Your task to perform on an android device: Open ESPN.com Image 0: 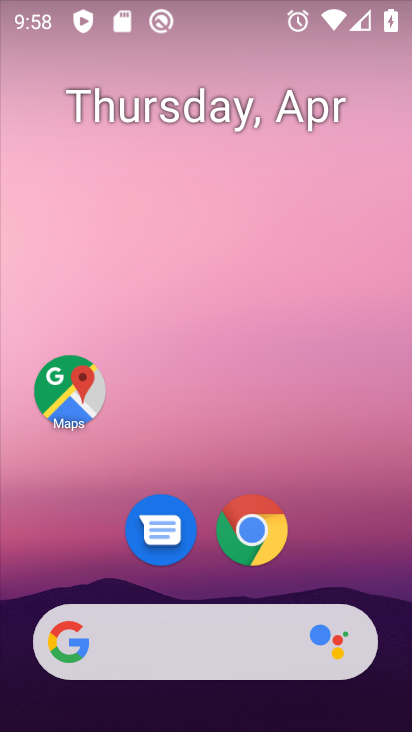
Step 0: click (258, 539)
Your task to perform on an android device: Open ESPN.com Image 1: 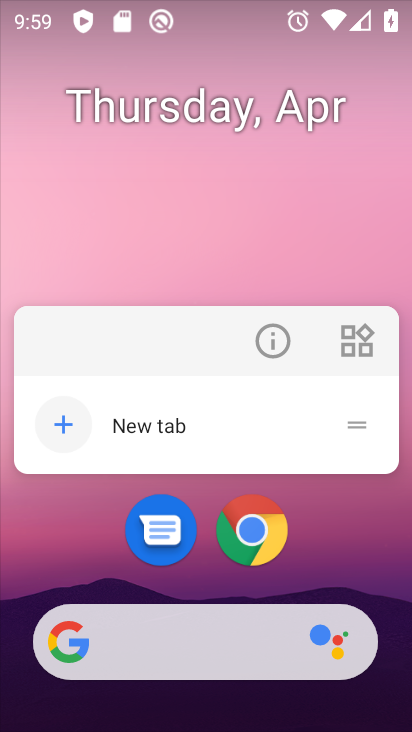
Step 1: click (255, 526)
Your task to perform on an android device: Open ESPN.com Image 2: 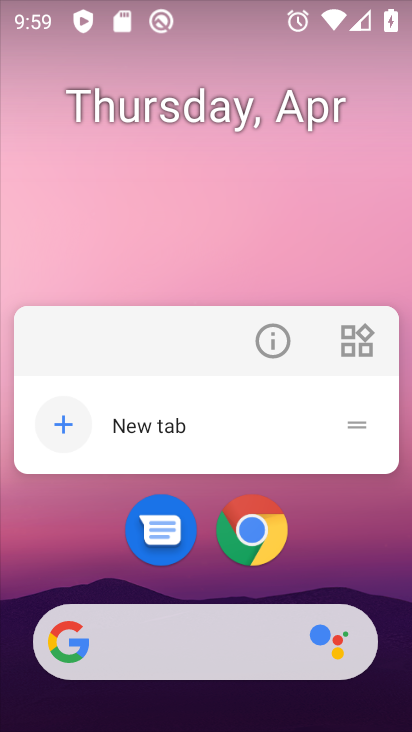
Step 2: click (250, 534)
Your task to perform on an android device: Open ESPN.com Image 3: 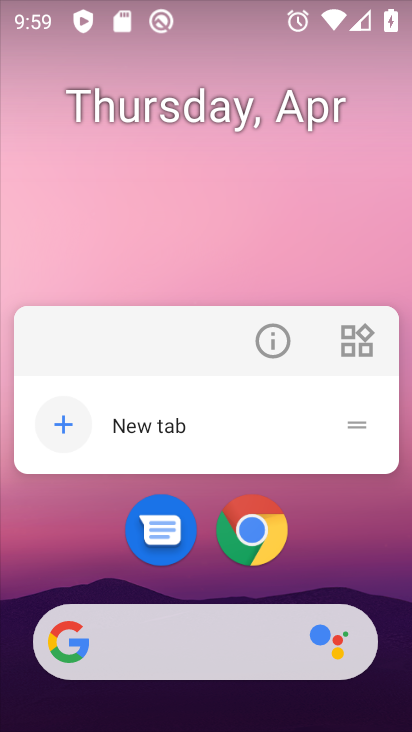
Step 3: click (275, 532)
Your task to perform on an android device: Open ESPN.com Image 4: 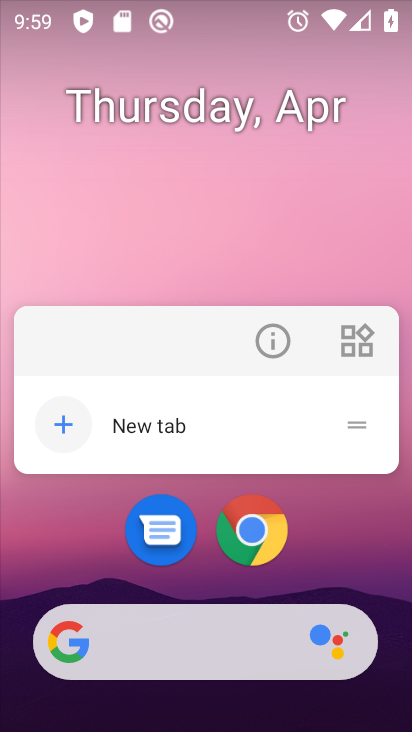
Step 4: click (275, 532)
Your task to perform on an android device: Open ESPN.com Image 5: 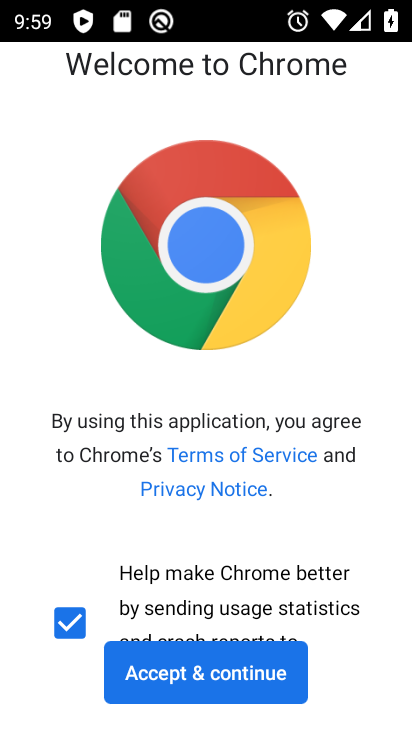
Step 5: click (226, 671)
Your task to perform on an android device: Open ESPN.com Image 6: 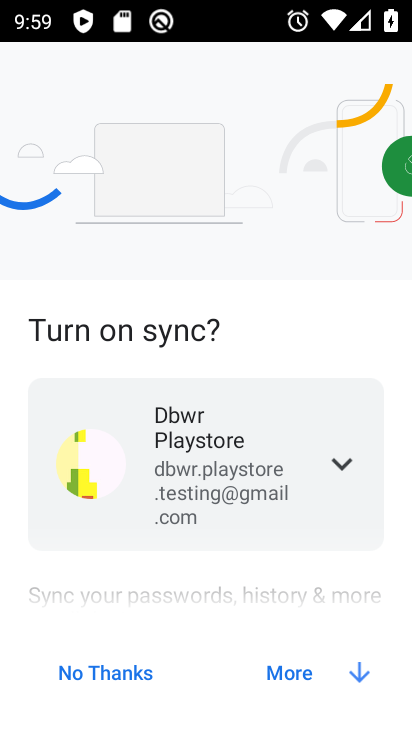
Step 6: click (301, 687)
Your task to perform on an android device: Open ESPN.com Image 7: 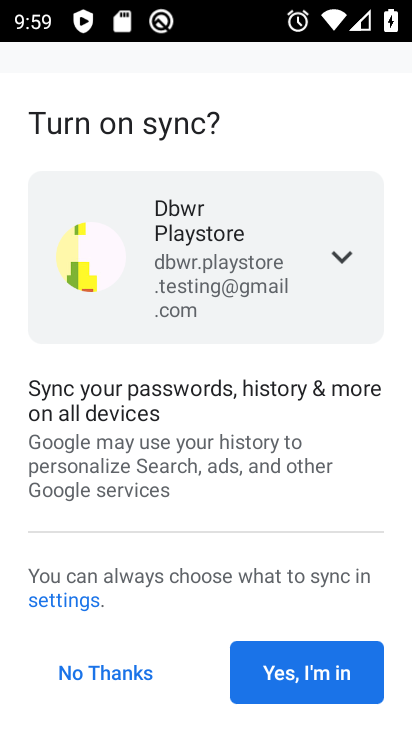
Step 7: click (288, 685)
Your task to perform on an android device: Open ESPN.com Image 8: 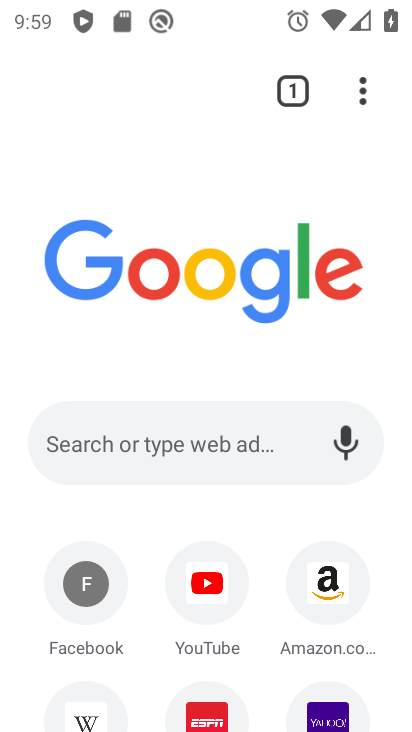
Step 8: click (184, 714)
Your task to perform on an android device: Open ESPN.com Image 9: 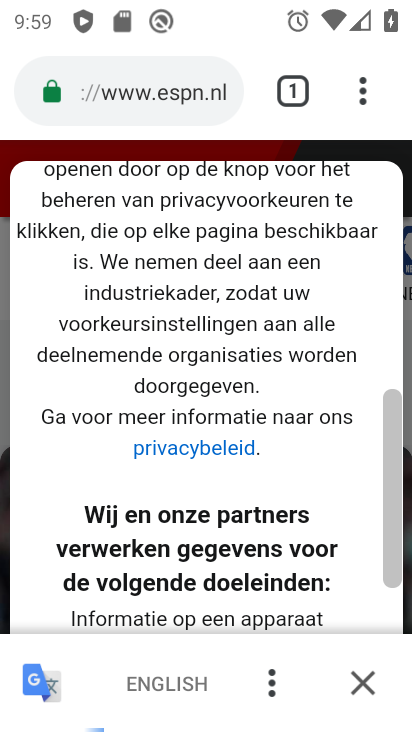
Step 9: click (160, 699)
Your task to perform on an android device: Open ESPN.com Image 10: 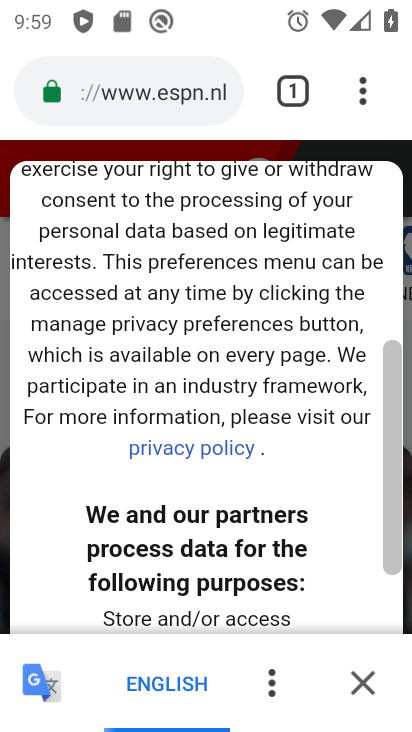
Step 10: click (373, 685)
Your task to perform on an android device: Open ESPN.com Image 11: 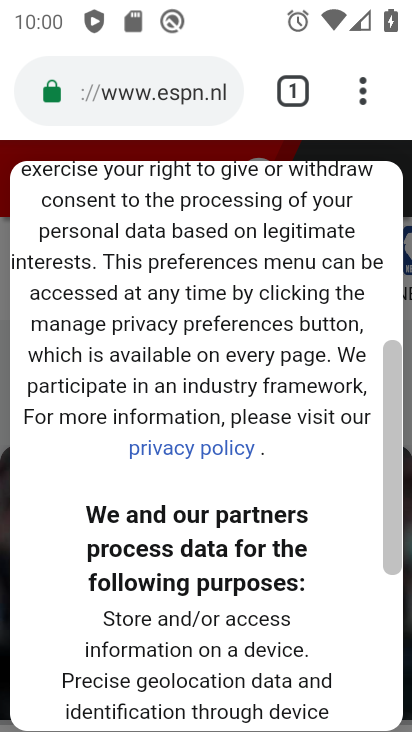
Step 11: drag from (184, 656) to (265, 208)
Your task to perform on an android device: Open ESPN.com Image 12: 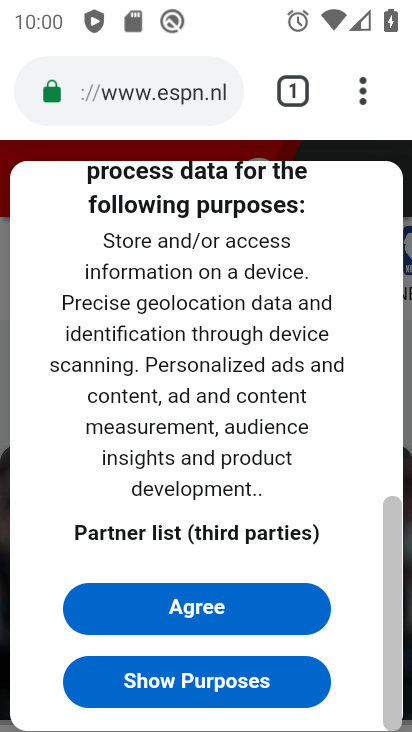
Step 12: click (231, 599)
Your task to perform on an android device: Open ESPN.com Image 13: 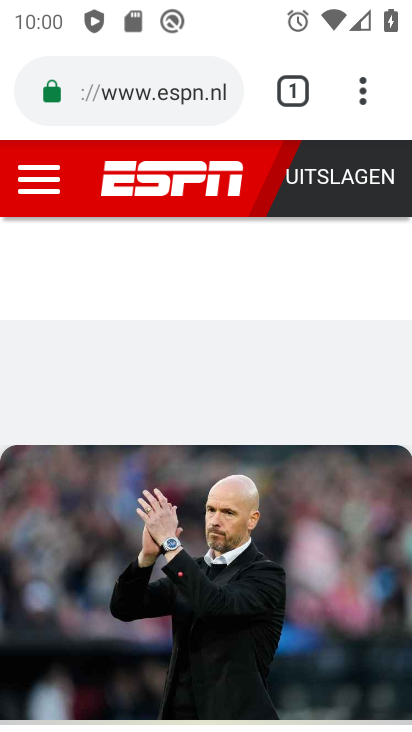
Step 13: task complete